Your task to perform on an android device: turn pop-ups on in chrome Image 0: 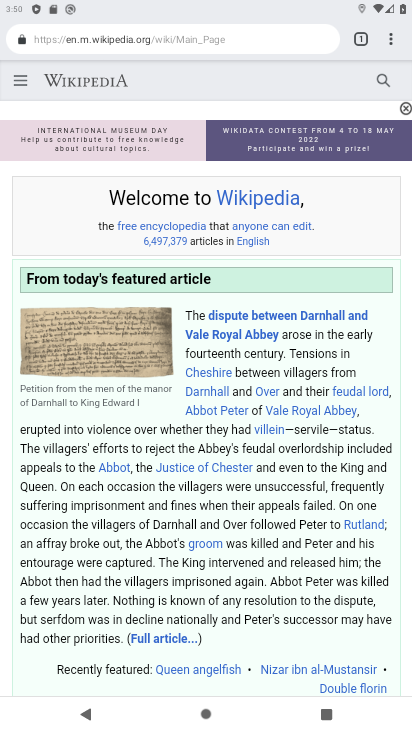
Step 0: press home button
Your task to perform on an android device: turn pop-ups on in chrome Image 1: 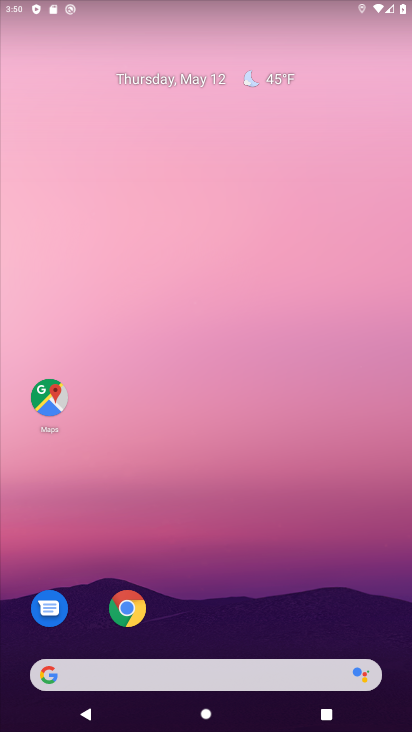
Step 1: click (118, 608)
Your task to perform on an android device: turn pop-ups on in chrome Image 2: 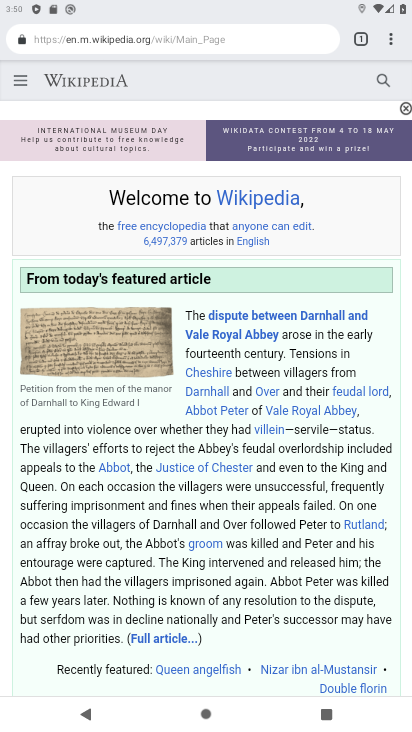
Step 2: drag from (385, 35) to (263, 479)
Your task to perform on an android device: turn pop-ups on in chrome Image 3: 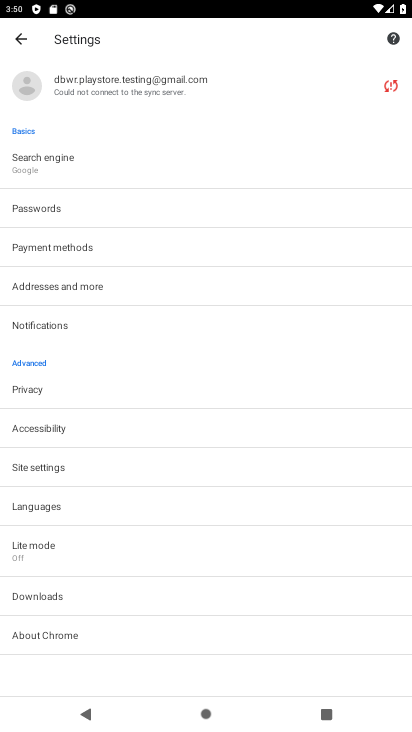
Step 3: click (44, 469)
Your task to perform on an android device: turn pop-ups on in chrome Image 4: 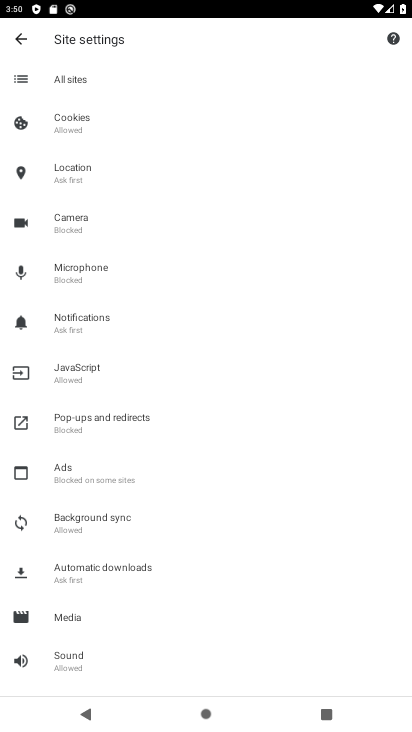
Step 4: click (122, 420)
Your task to perform on an android device: turn pop-ups on in chrome Image 5: 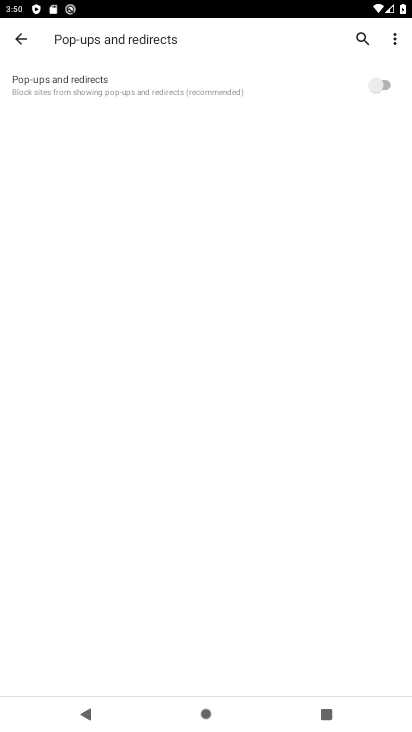
Step 5: click (387, 76)
Your task to perform on an android device: turn pop-ups on in chrome Image 6: 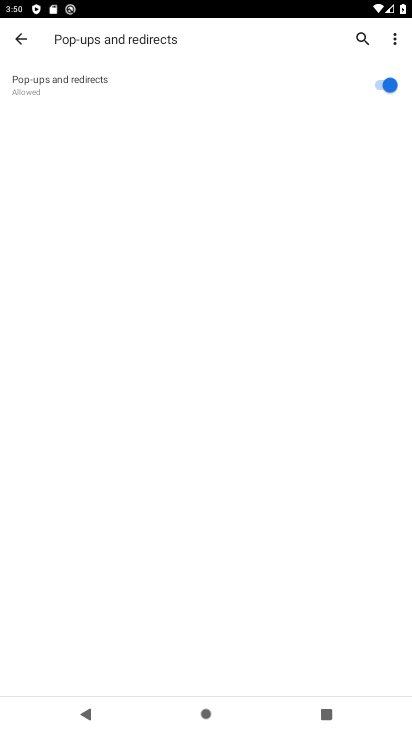
Step 6: task complete